Your task to perform on an android device: check google app version Image 0: 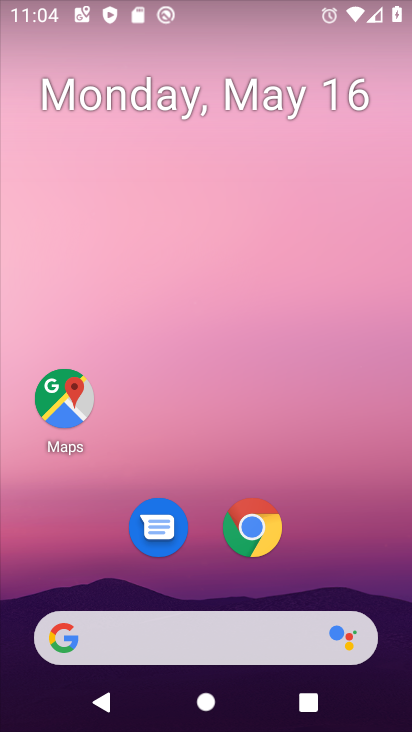
Step 0: drag from (385, 577) to (307, 32)
Your task to perform on an android device: check google app version Image 1: 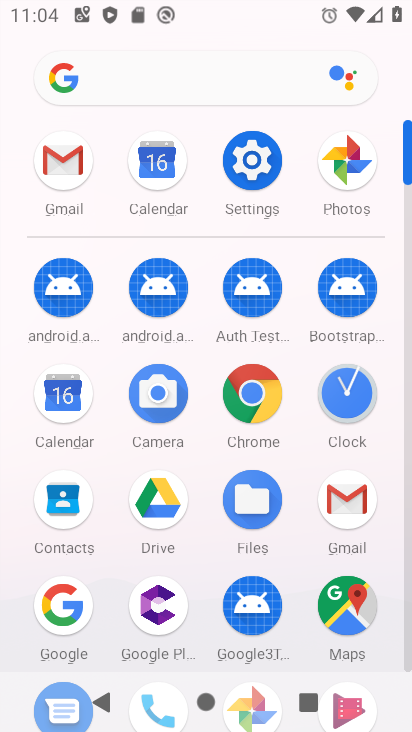
Step 1: click (61, 606)
Your task to perform on an android device: check google app version Image 2: 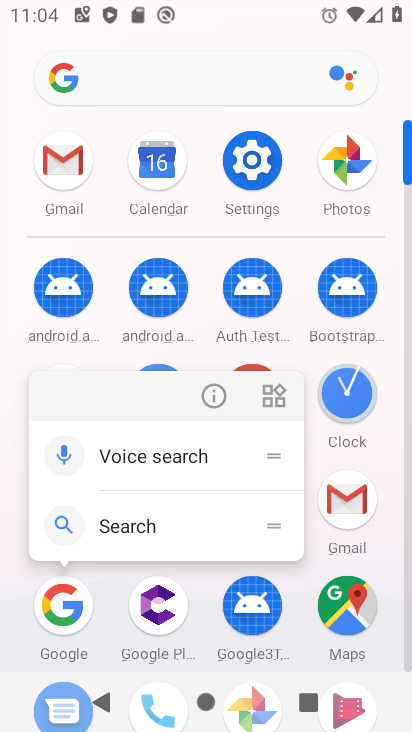
Step 2: click (211, 401)
Your task to perform on an android device: check google app version Image 3: 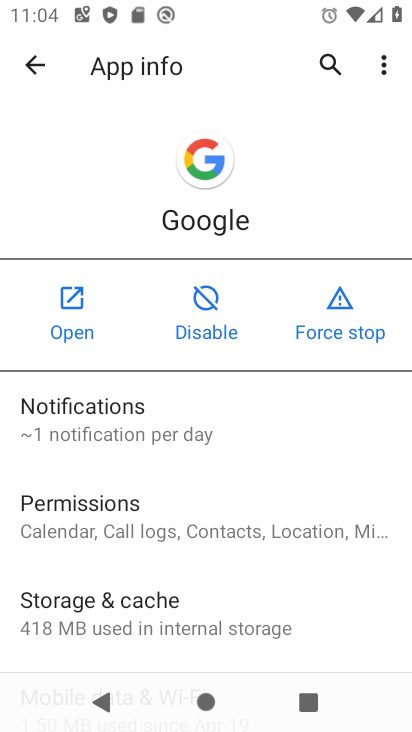
Step 3: drag from (172, 524) to (226, 77)
Your task to perform on an android device: check google app version Image 4: 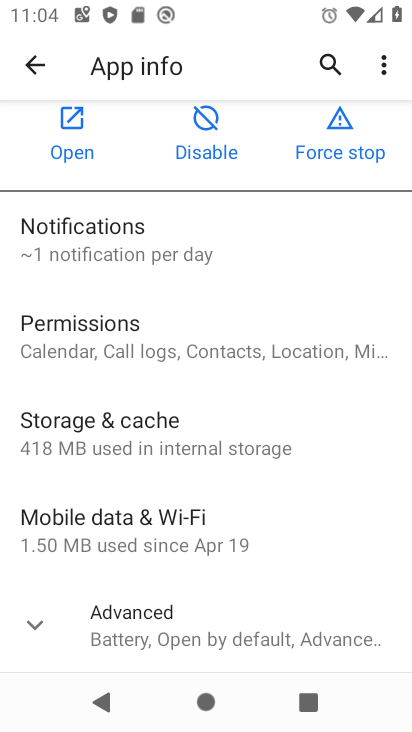
Step 4: click (31, 630)
Your task to perform on an android device: check google app version Image 5: 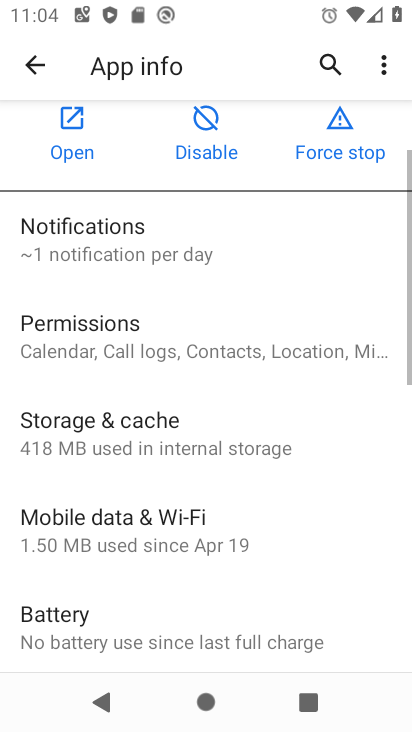
Step 5: task complete